Your task to perform on an android device: change the clock display to show seconds Image 0: 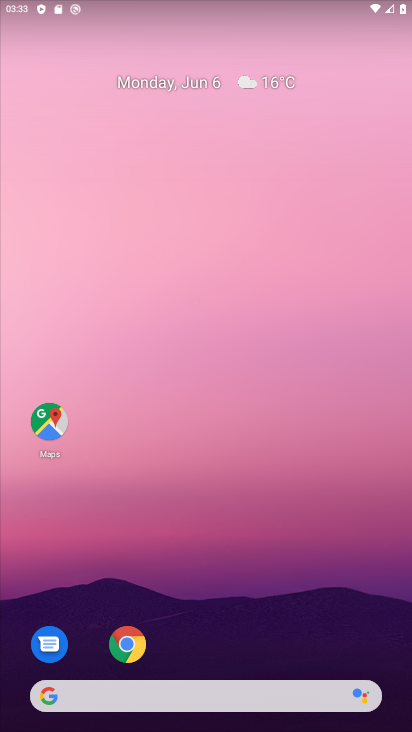
Step 0: drag from (394, 650) to (354, 88)
Your task to perform on an android device: change the clock display to show seconds Image 1: 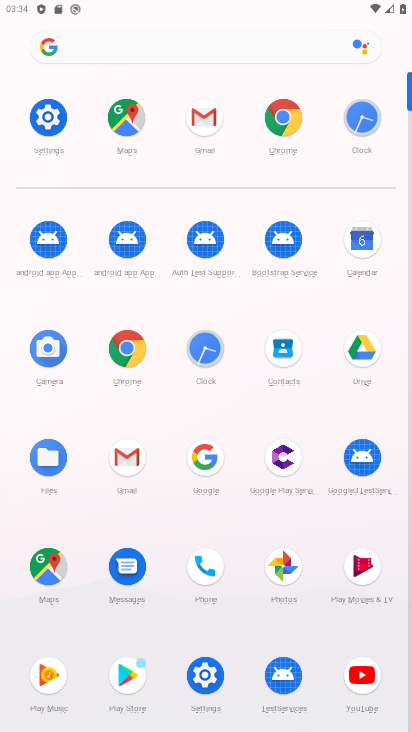
Step 1: click (203, 352)
Your task to perform on an android device: change the clock display to show seconds Image 2: 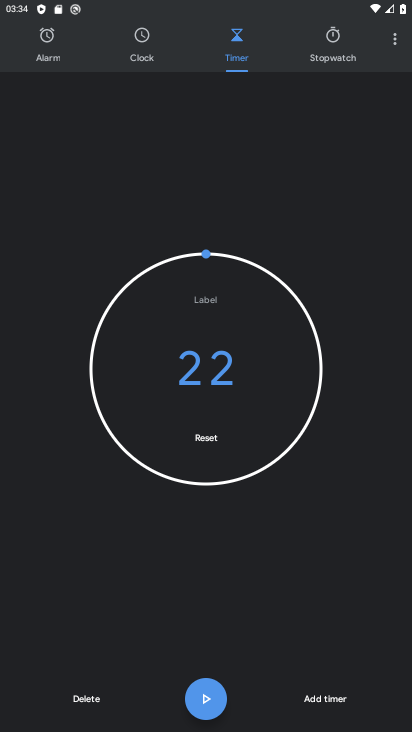
Step 2: click (398, 39)
Your task to perform on an android device: change the clock display to show seconds Image 3: 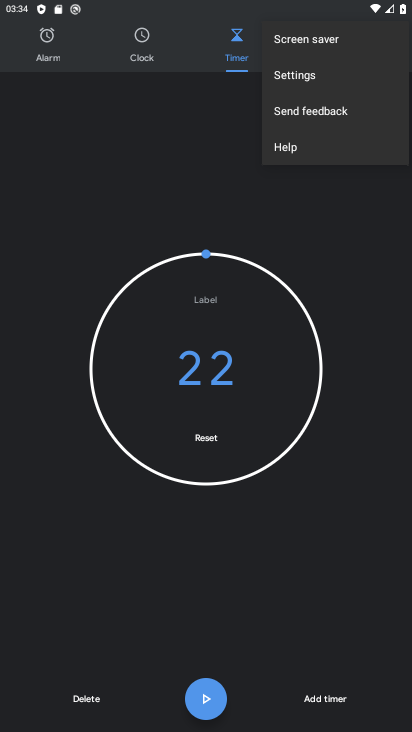
Step 3: click (299, 78)
Your task to perform on an android device: change the clock display to show seconds Image 4: 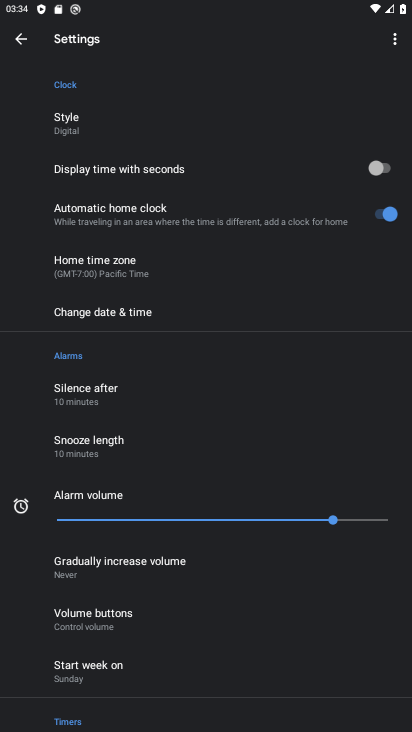
Step 4: click (387, 160)
Your task to perform on an android device: change the clock display to show seconds Image 5: 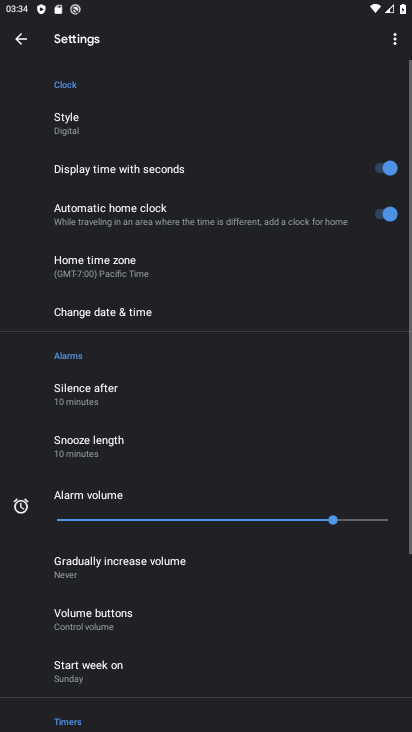
Step 5: task complete